Your task to perform on an android device: change the clock display to digital Image 0: 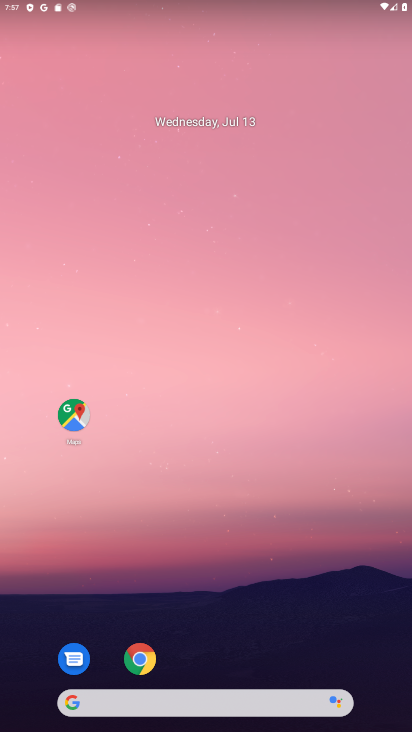
Step 0: drag from (298, 650) to (281, 204)
Your task to perform on an android device: change the clock display to digital Image 1: 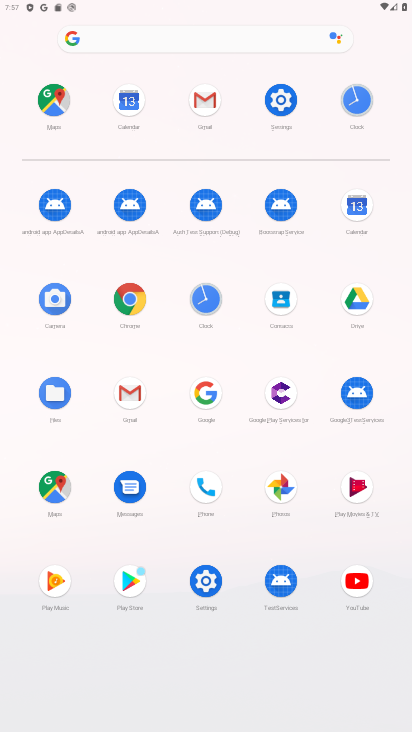
Step 1: click (276, 104)
Your task to perform on an android device: change the clock display to digital Image 2: 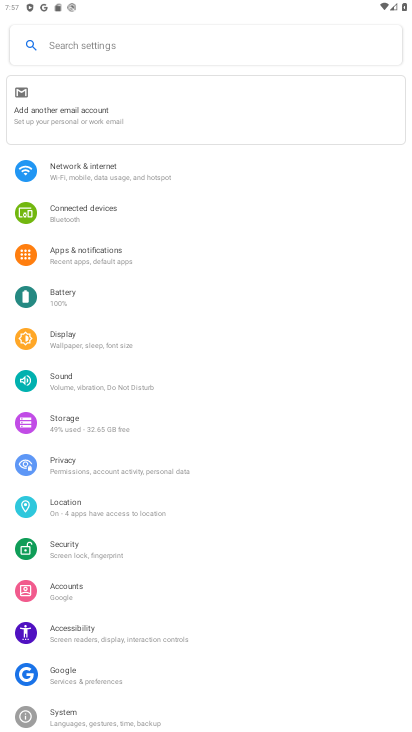
Step 2: press home button
Your task to perform on an android device: change the clock display to digital Image 3: 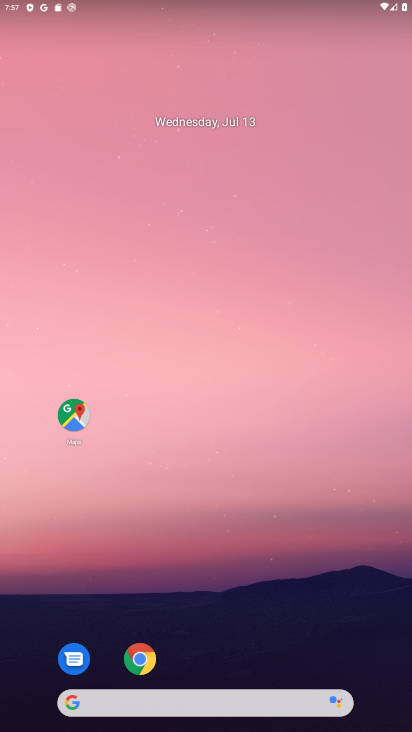
Step 3: drag from (288, 654) to (312, 253)
Your task to perform on an android device: change the clock display to digital Image 4: 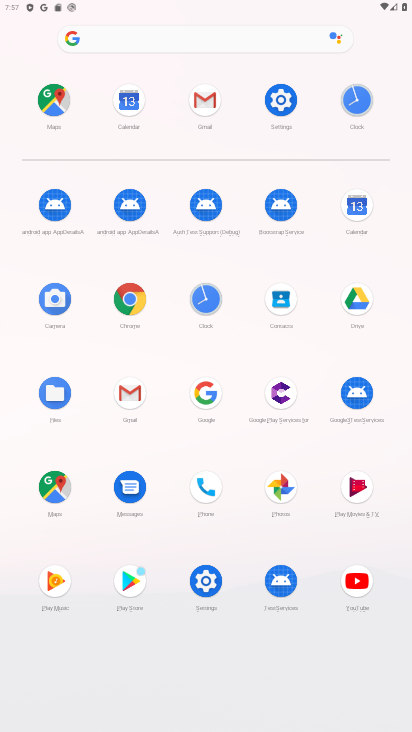
Step 4: click (346, 121)
Your task to perform on an android device: change the clock display to digital Image 5: 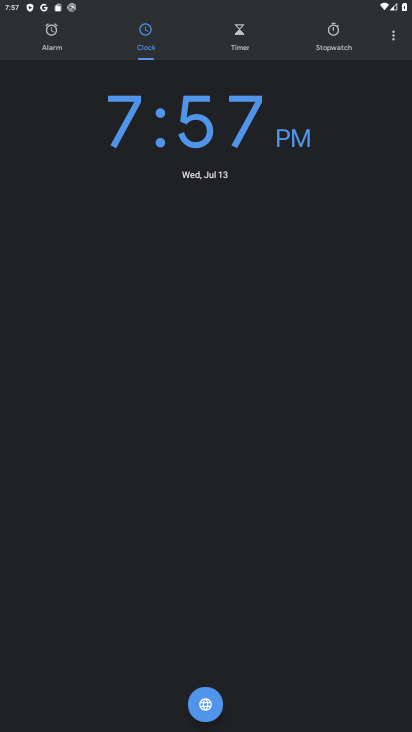
Step 5: click (400, 41)
Your task to perform on an android device: change the clock display to digital Image 6: 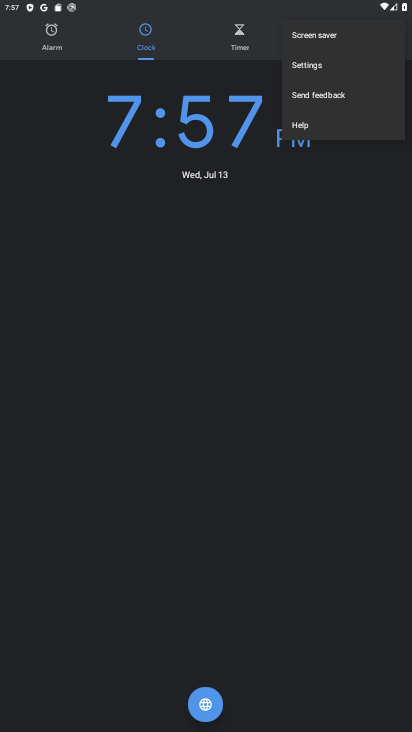
Step 6: click (316, 69)
Your task to perform on an android device: change the clock display to digital Image 7: 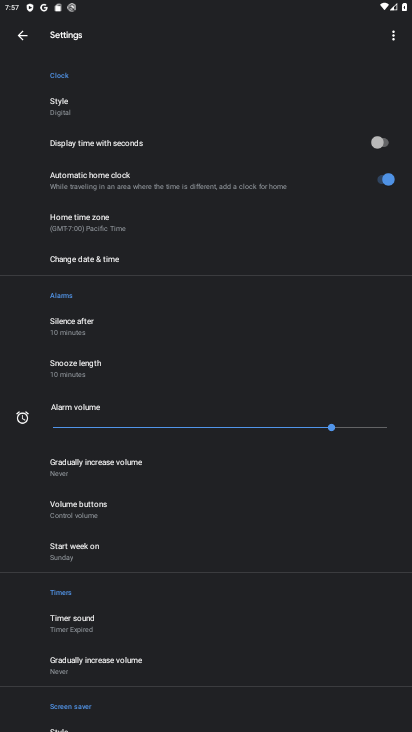
Step 7: click (168, 253)
Your task to perform on an android device: change the clock display to digital Image 8: 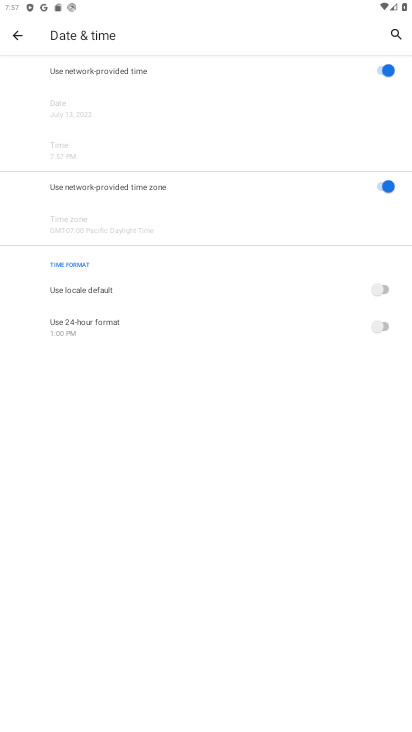
Step 8: click (5, 34)
Your task to perform on an android device: change the clock display to digital Image 9: 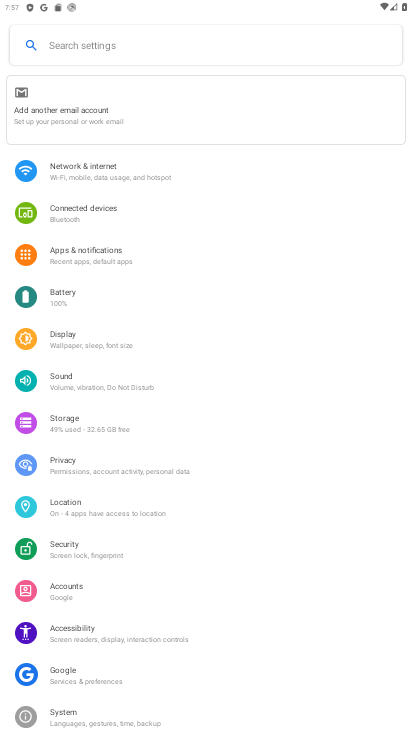
Step 9: task complete